Your task to perform on an android device: Open accessibility settings Image 0: 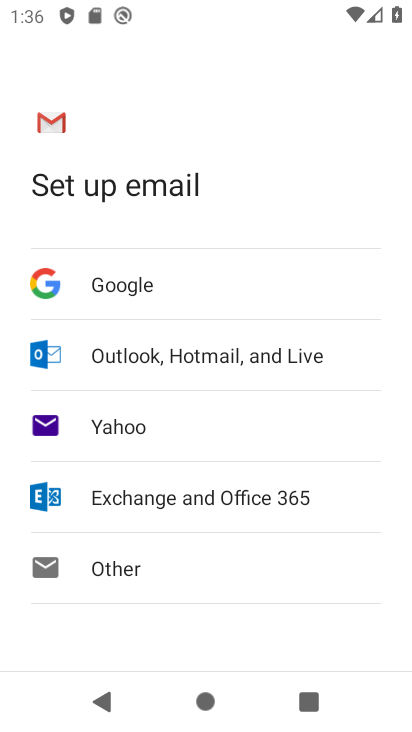
Step 0: press home button
Your task to perform on an android device: Open accessibility settings Image 1: 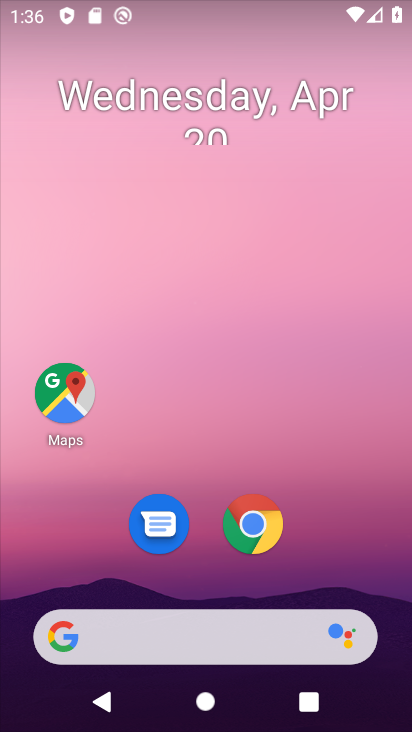
Step 1: drag from (319, 538) to (261, 6)
Your task to perform on an android device: Open accessibility settings Image 2: 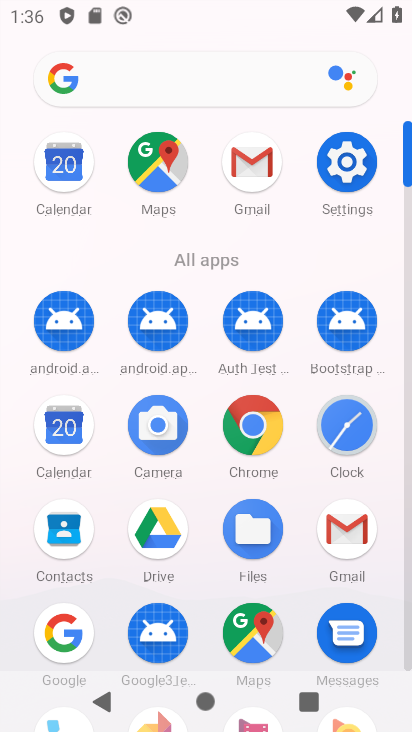
Step 2: click (347, 161)
Your task to perform on an android device: Open accessibility settings Image 3: 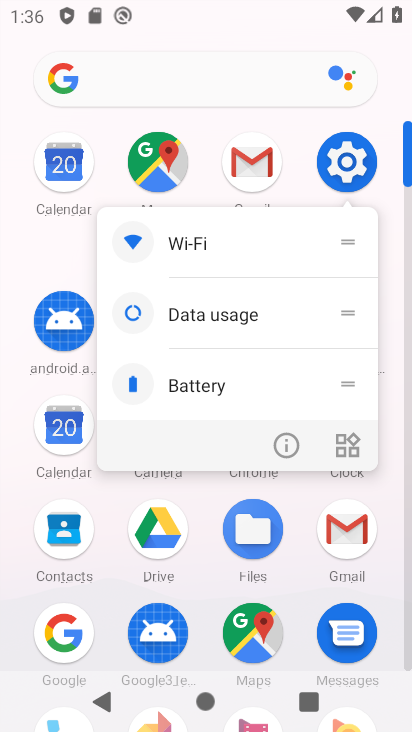
Step 3: click (347, 161)
Your task to perform on an android device: Open accessibility settings Image 4: 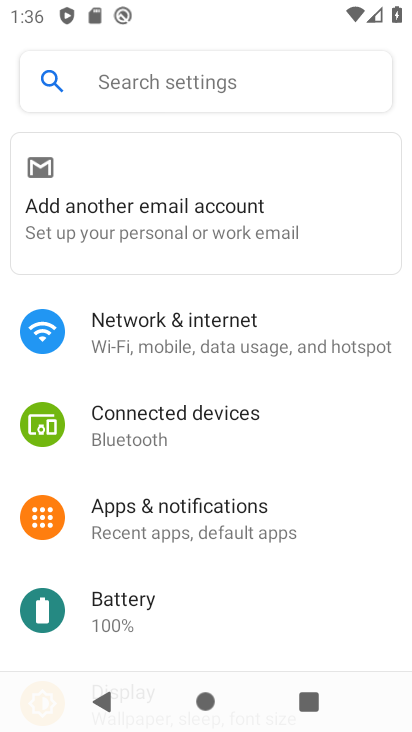
Step 4: drag from (208, 586) to (287, 76)
Your task to perform on an android device: Open accessibility settings Image 5: 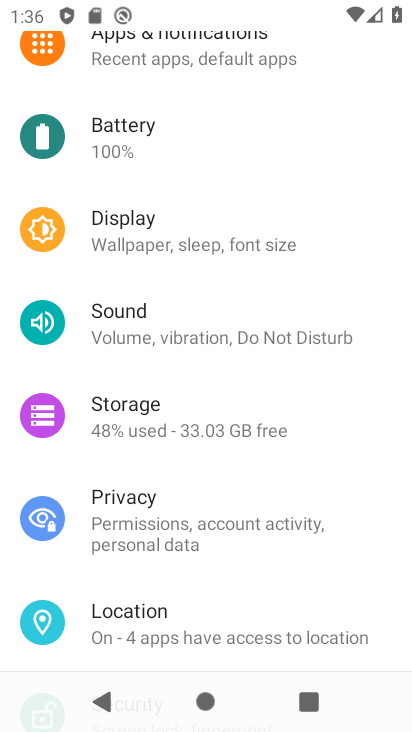
Step 5: drag from (235, 585) to (202, 138)
Your task to perform on an android device: Open accessibility settings Image 6: 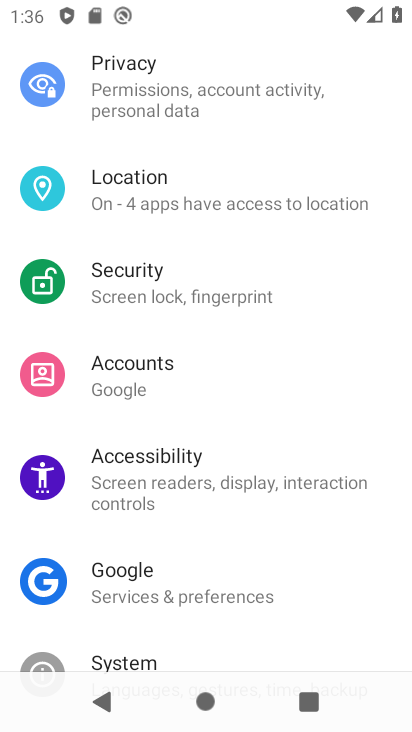
Step 6: click (239, 471)
Your task to perform on an android device: Open accessibility settings Image 7: 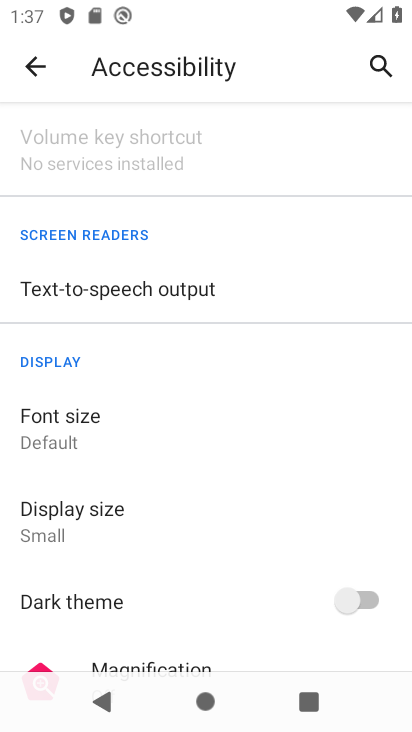
Step 7: task complete